Your task to perform on an android device: delete browsing data in the chrome app Image 0: 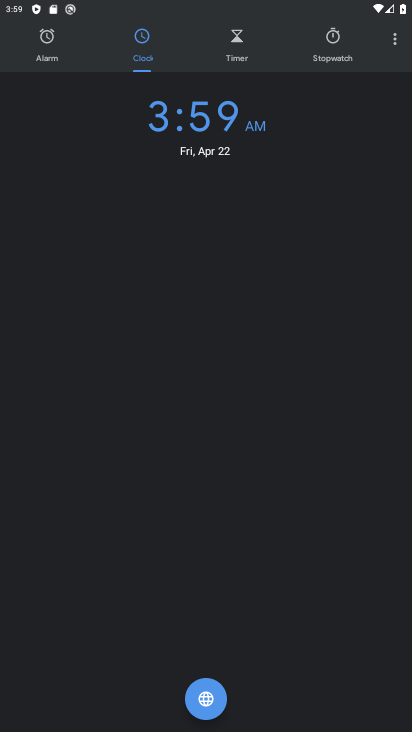
Step 0: press home button
Your task to perform on an android device: delete browsing data in the chrome app Image 1: 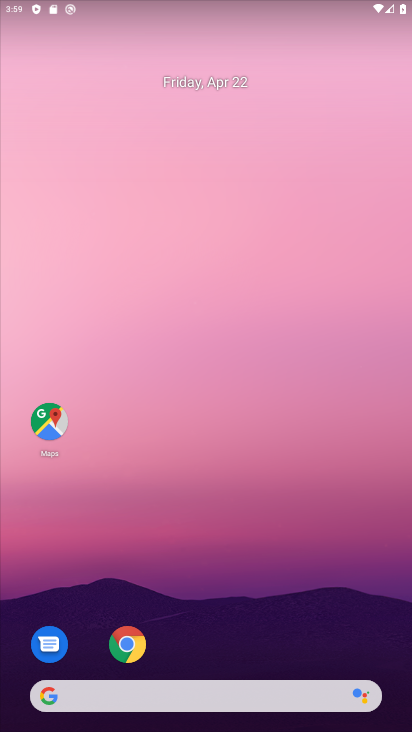
Step 1: click (133, 645)
Your task to perform on an android device: delete browsing data in the chrome app Image 2: 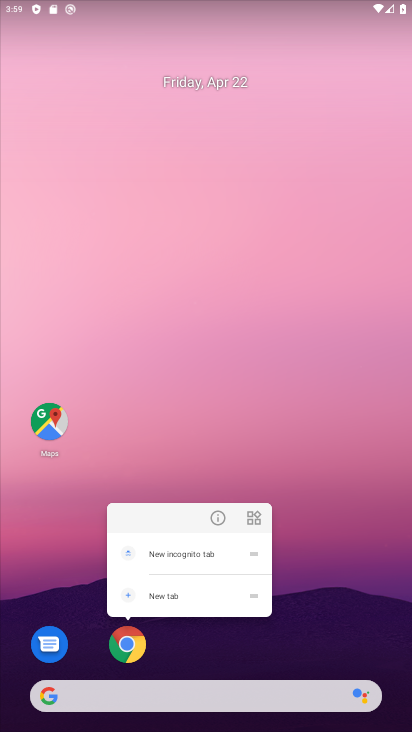
Step 2: click (133, 645)
Your task to perform on an android device: delete browsing data in the chrome app Image 3: 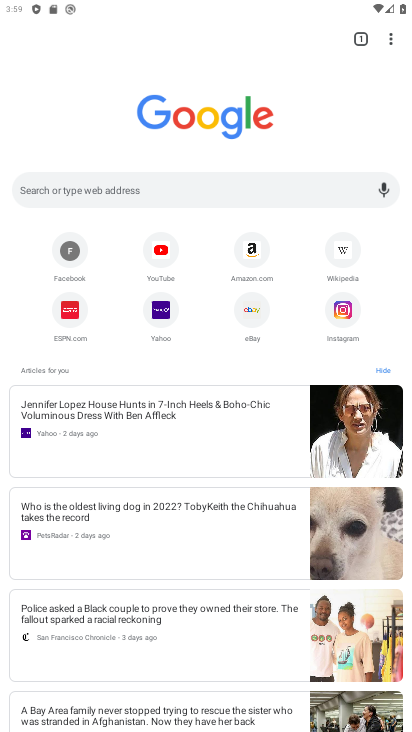
Step 3: click (133, 645)
Your task to perform on an android device: delete browsing data in the chrome app Image 4: 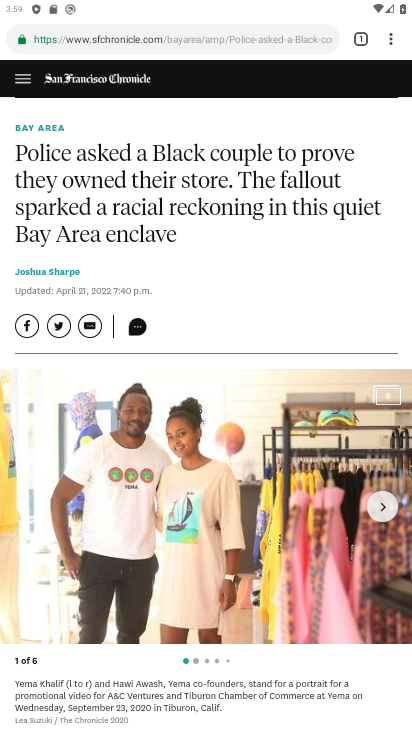
Step 4: press home button
Your task to perform on an android device: delete browsing data in the chrome app Image 5: 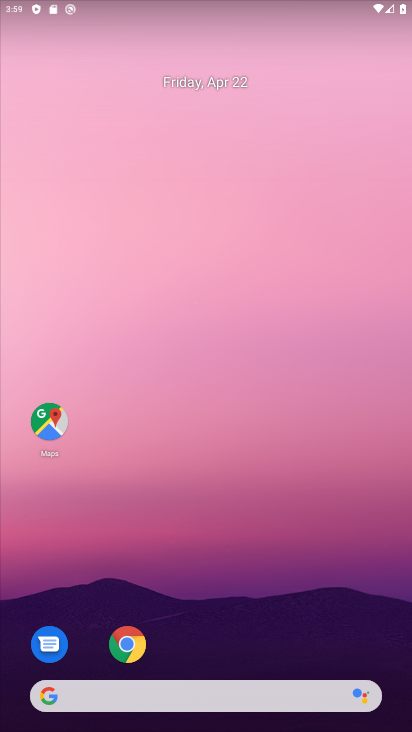
Step 5: click (129, 646)
Your task to perform on an android device: delete browsing data in the chrome app Image 6: 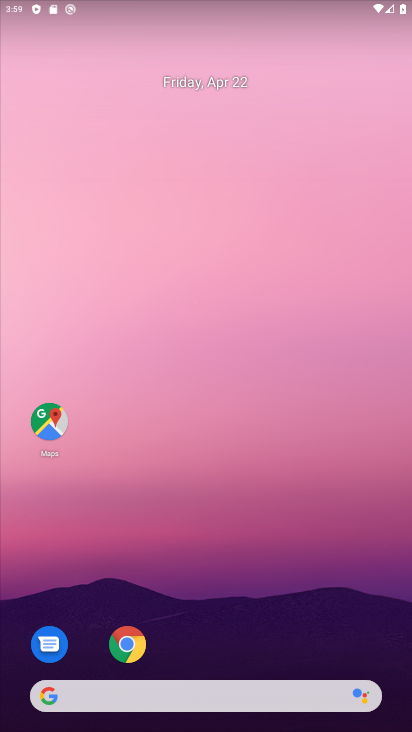
Step 6: click (129, 646)
Your task to perform on an android device: delete browsing data in the chrome app Image 7: 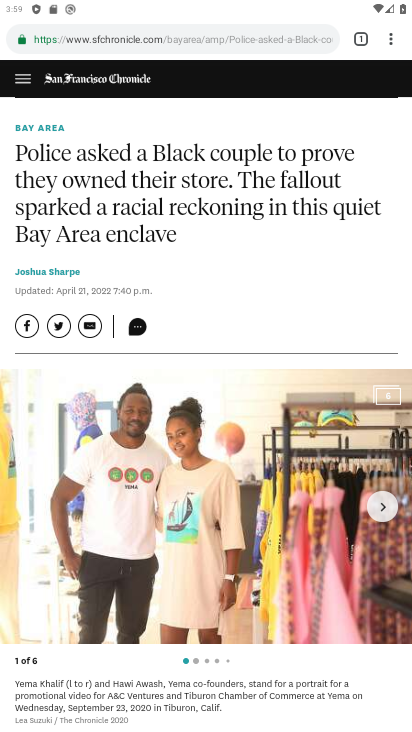
Step 7: click (390, 35)
Your task to perform on an android device: delete browsing data in the chrome app Image 8: 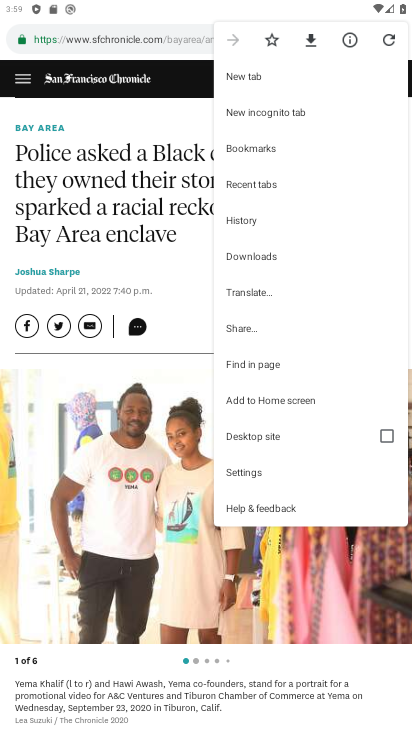
Step 8: click (249, 218)
Your task to perform on an android device: delete browsing data in the chrome app Image 9: 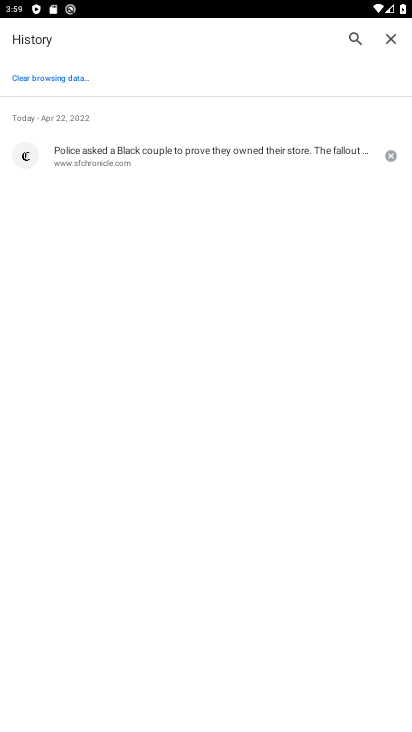
Step 9: click (57, 77)
Your task to perform on an android device: delete browsing data in the chrome app Image 10: 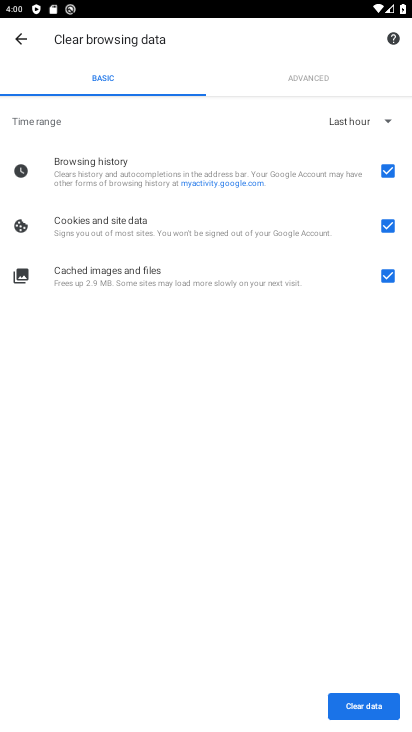
Step 10: click (357, 121)
Your task to perform on an android device: delete browsing data in the chrome app Image 11: 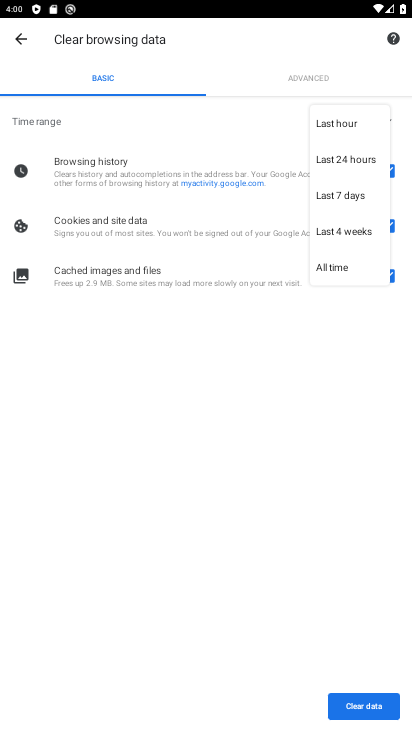
Step 11: click (320, 260)
Your task to perform on an android device: delete browsing data in the chrome app Image 12: 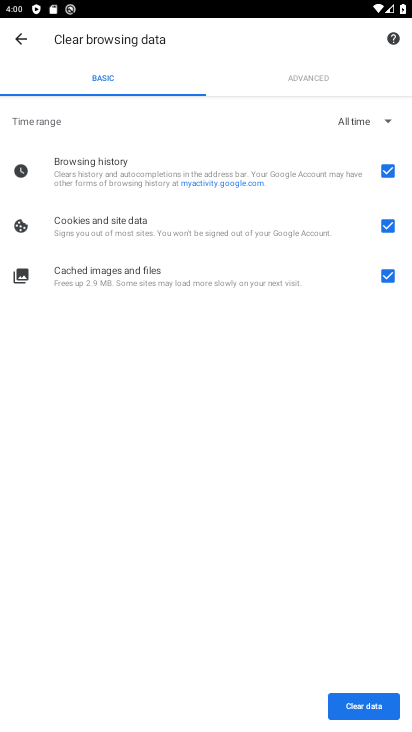
Step 12: click (386, 710)
Your task to perform on an android device: delete browsing data in the chrome app Image 13: 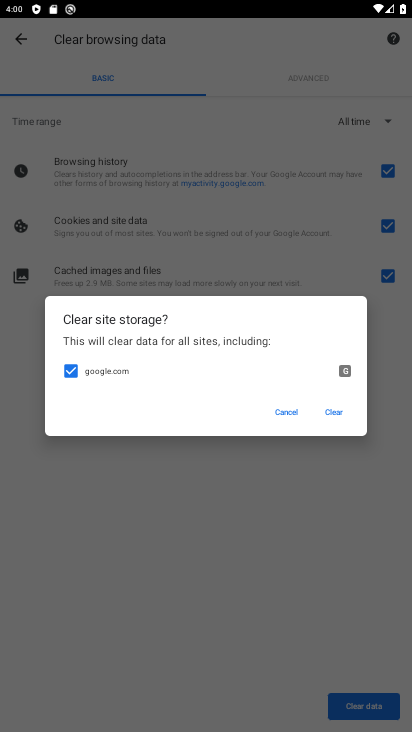
Step 13: click (330, 418)
Your task to perform on an android device: delete browsing data in the chrome app Image 14: 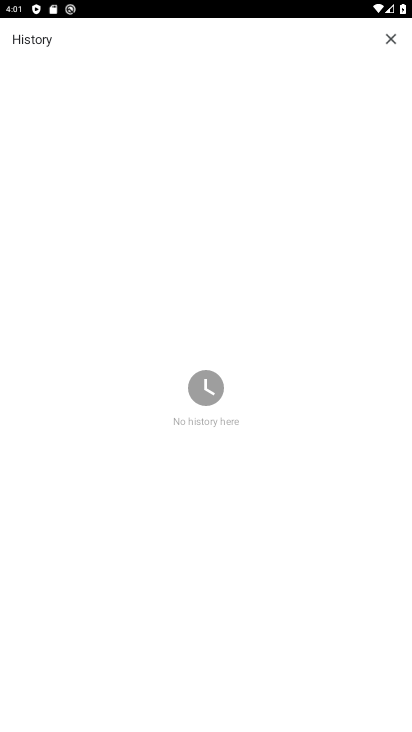
Step 14: task complete